Your task to perform on an android device: Open display settings Image 0: 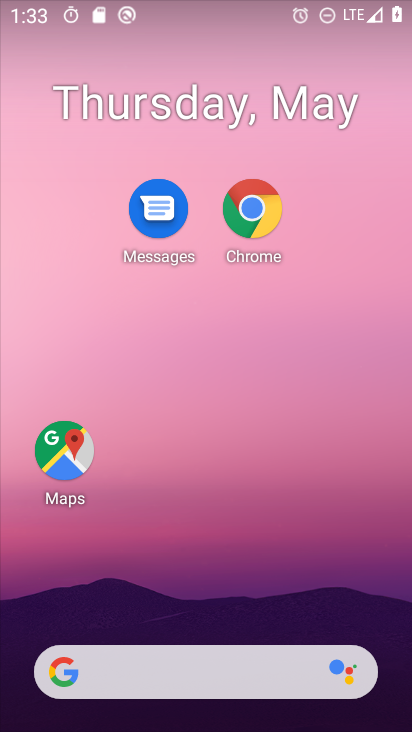
Step 0: drag from (246, 574) to (100, 0)
Your task to perform on an android device: Open display settings Image 1: 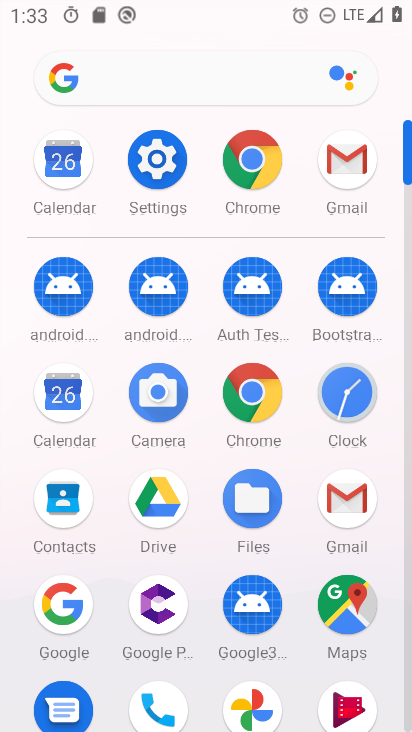
Step 1: click (151, 188)
Your task to perform on an android device: Open display settings Image 2: 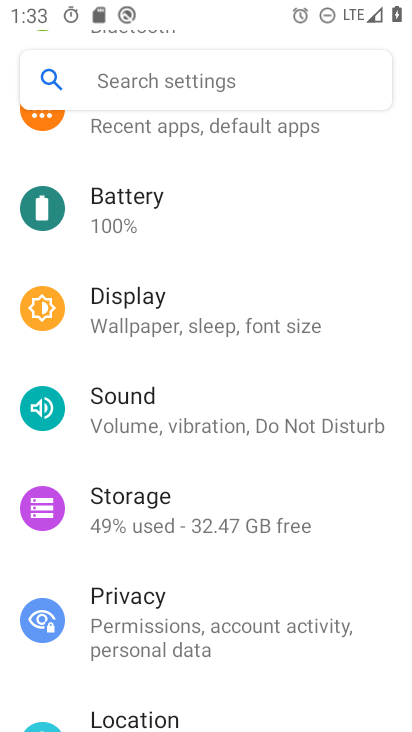
Step 2: click (104, 330)
Your task to perform on an android device: Open display settings Image 3: 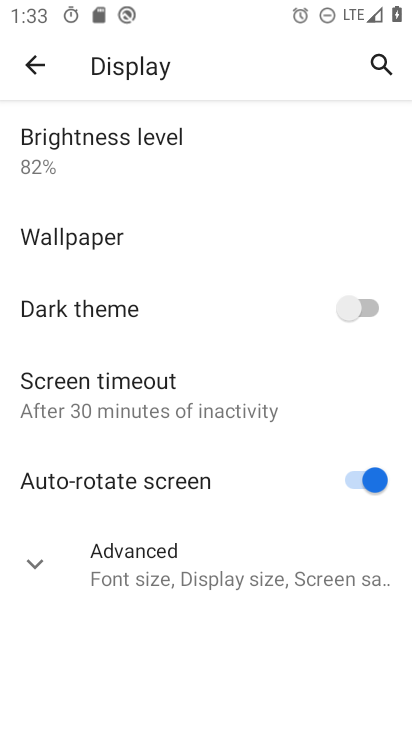
Step 3: task complete